Your task to perform on an android device: turn on bluetooth scan Image 0: 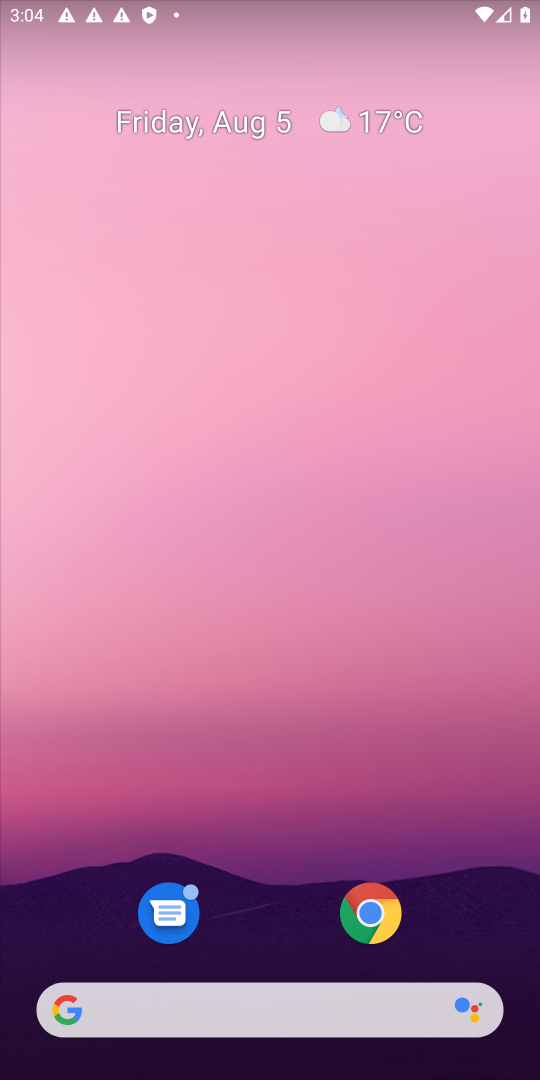
Step 0: drag from (258, 622) to (329, 92)
Your task to perform on an android device: turn on bluetooth scan Image 1: 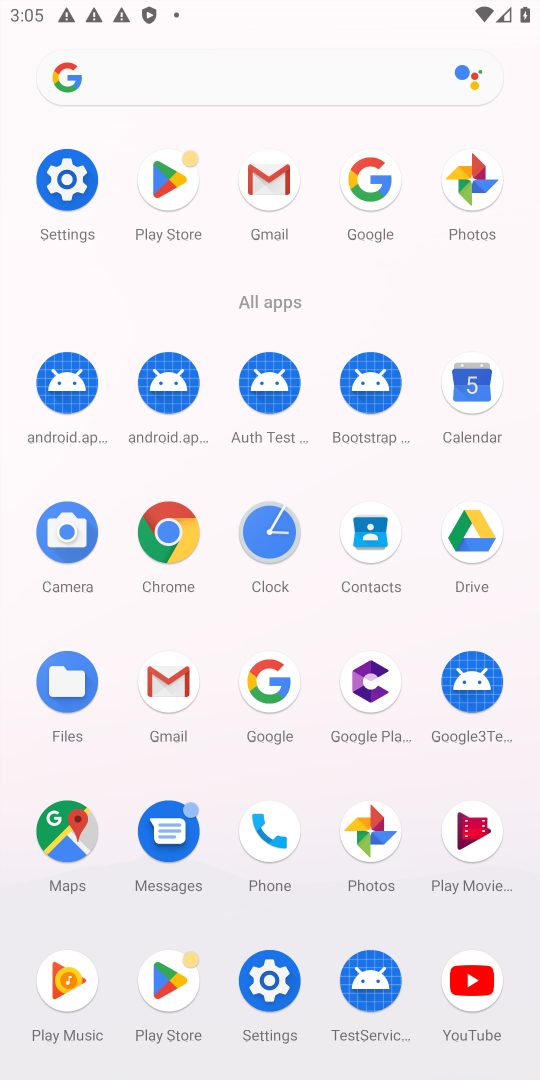
Step 1: click (85, 173)
Your task to perform on an android device: turn on bluetooth scan Image 2: 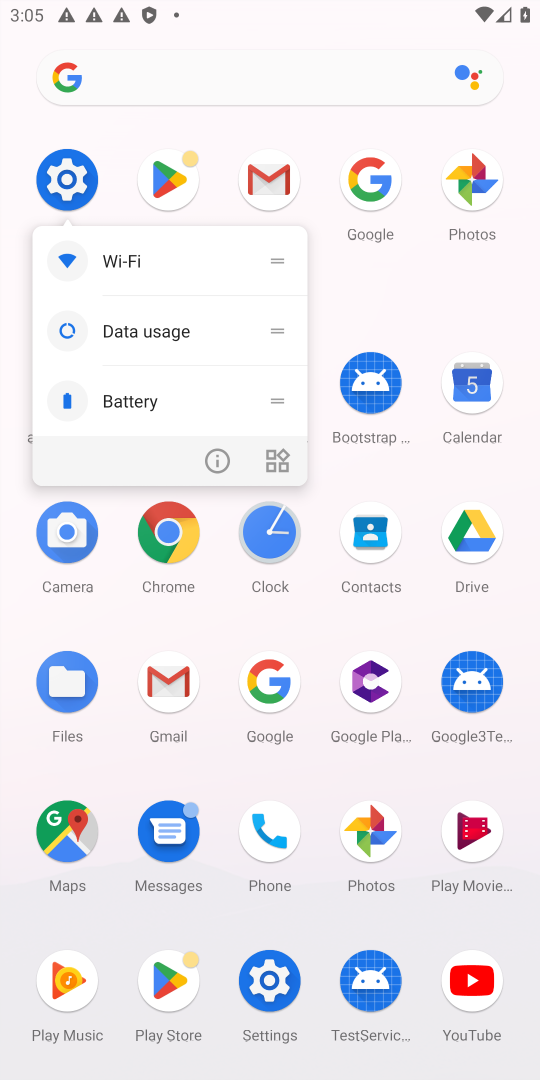
Step 2: click (61, 172)
Your task to perform on an android device: turn on bluetooth scan Image 3: 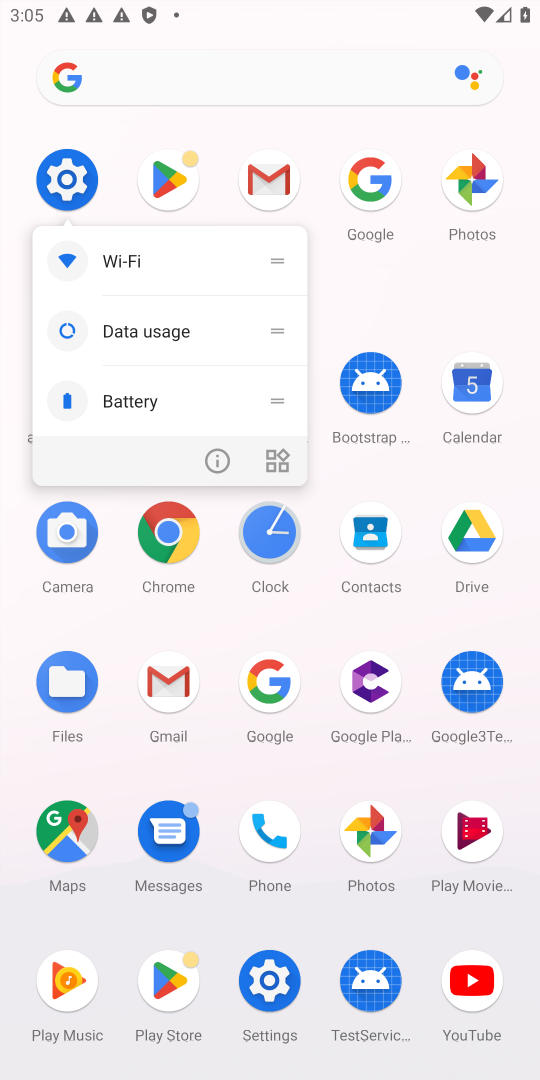
Step 3: click (61, 173)
Your task to perform on an android device: turn on bluetooth scan Image 4: 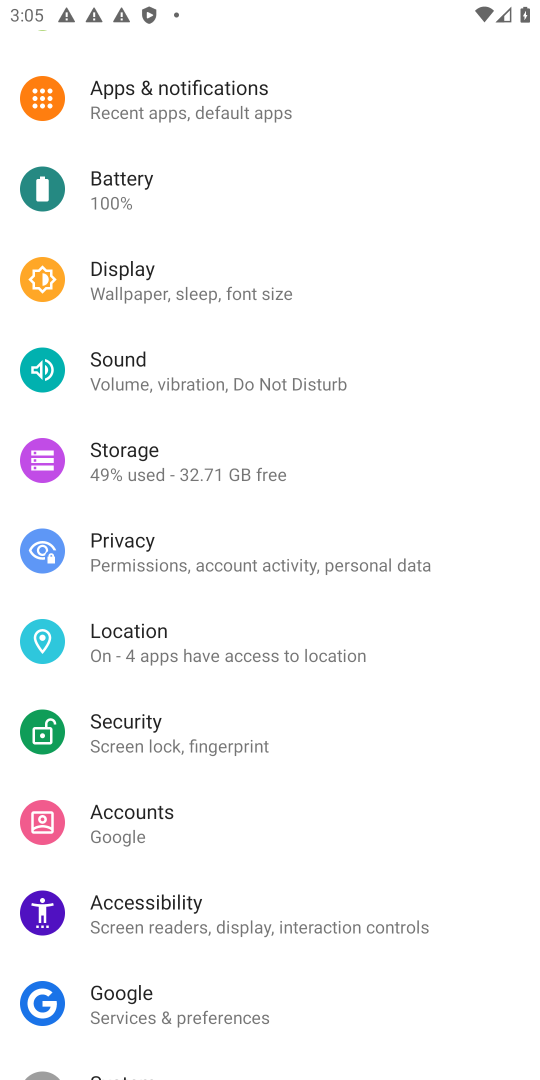
Step 4: click (128, 644)
Your task to perform on an android device: turn on bluetooth scan Image 5: 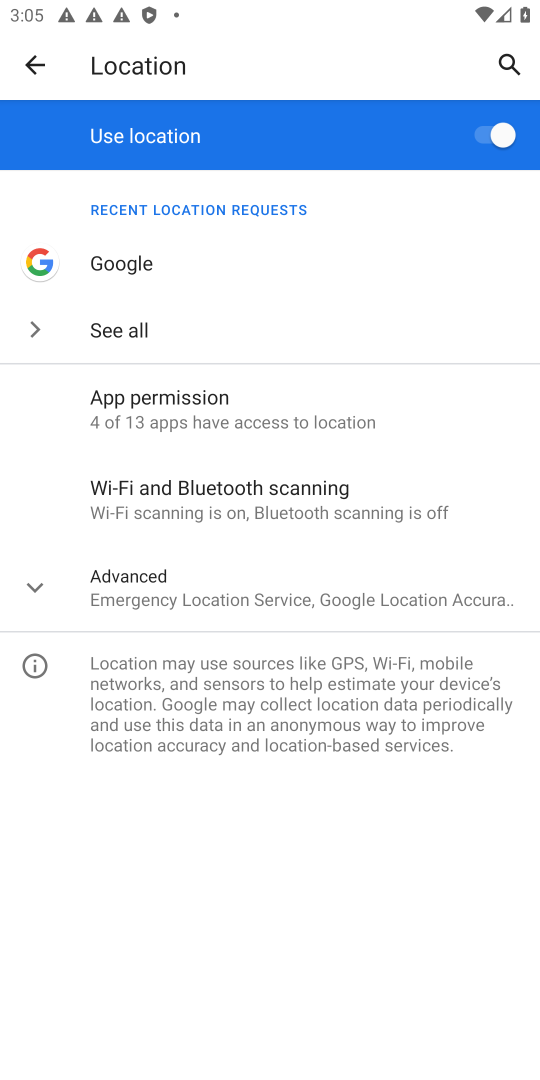
Step 5: click (271, 520)
Your task to perform on an android device: turn on bluetooth scan Image 6: 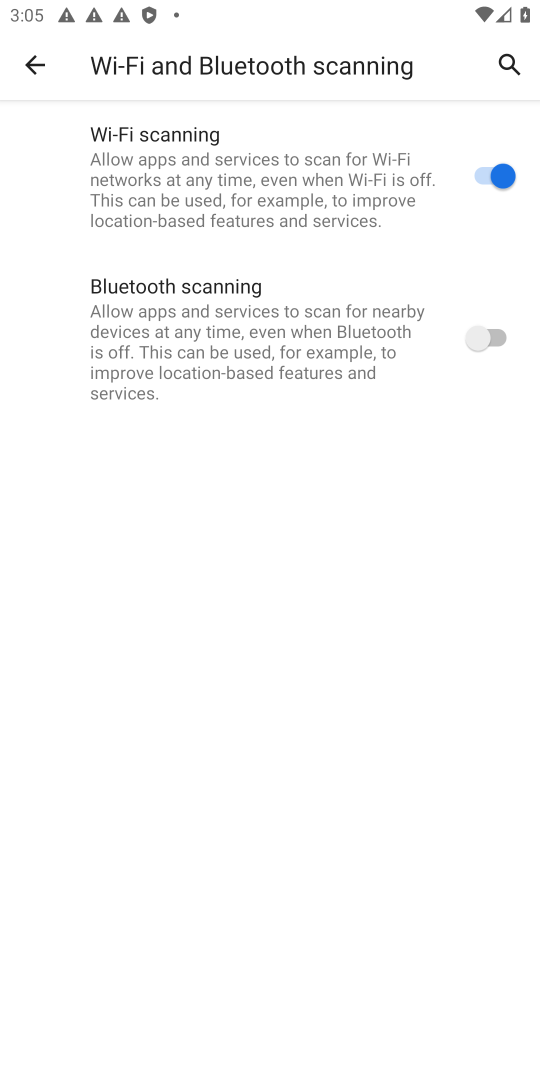
Step 6: click (496, 331)
Your task to perform on an android device: turn on bluetooth scan Image 7: 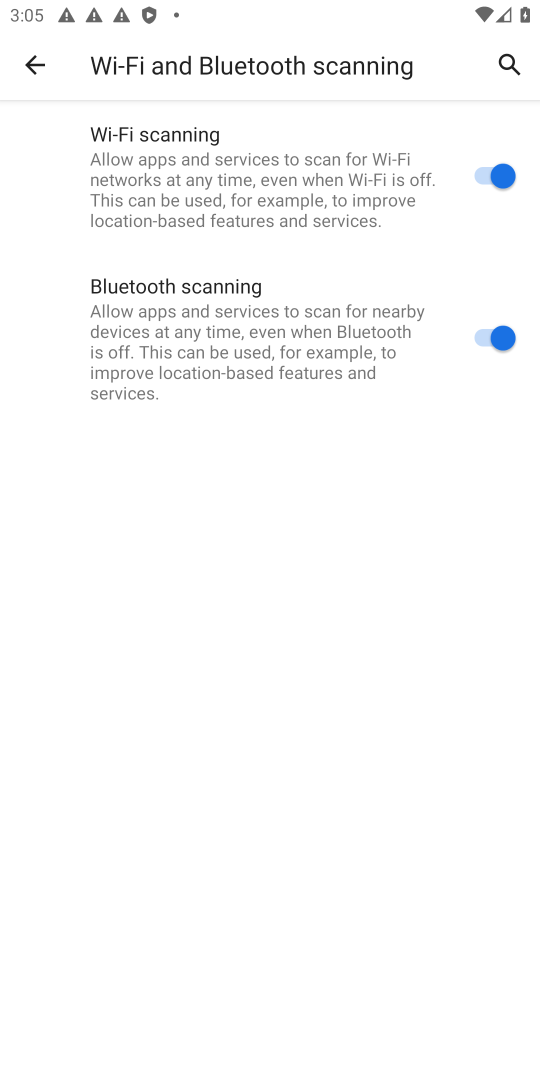
Step 7: task complete